Your task to perform on an android device: open app "Expedia: Hotels, Flights & Car" (install if not already installed) and enter user name: "crusader@outlook.com" and password: "Toryize" Image 0: 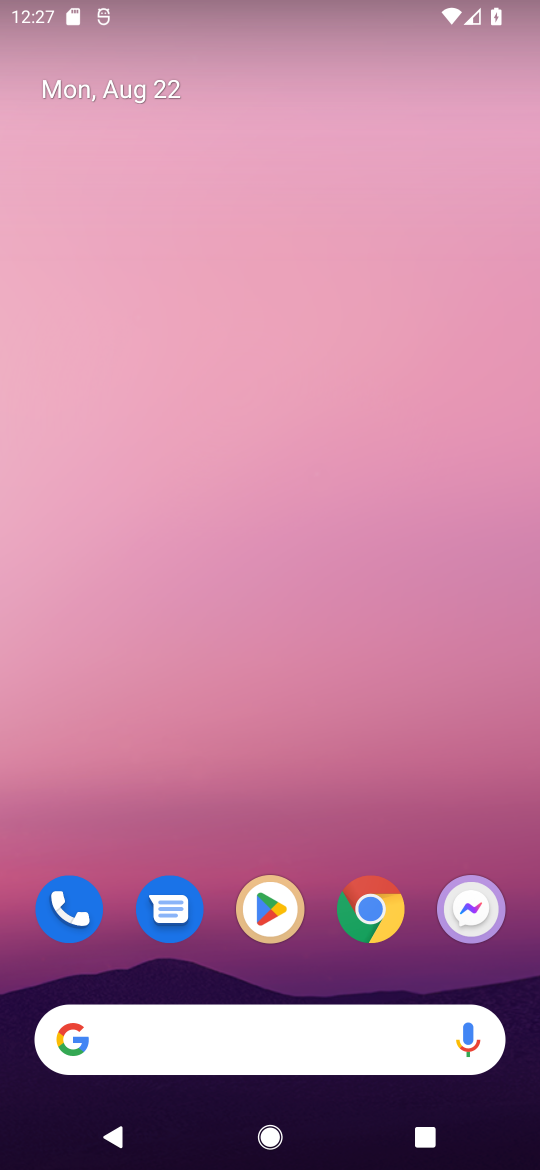
Step 0: click (256, 908)
Your task to perform on an android device: open app "Expedia: Hotels, Flights & Car" (install if not already installed) and enter user name: "crusader@outlook.com" and password: "Toryize" Image 1: 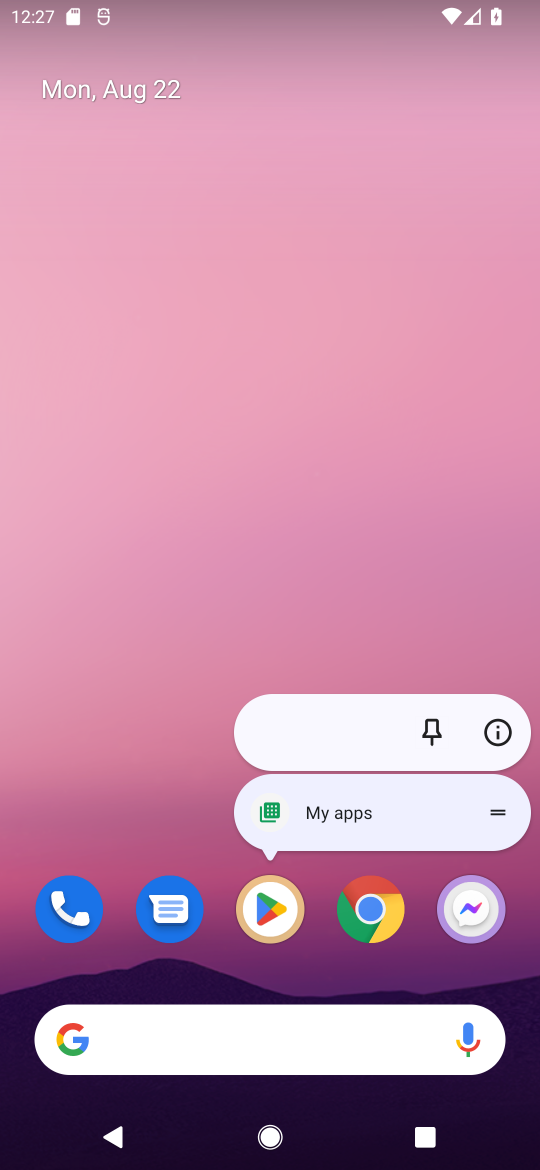
Step 1: click (272, 913)
Your task to perform on an android device: open app "Expedia: Hotels, Flights & Car" (install if not already installed) and enter user name: "crusader@outlook.com" and password: "Toryize" Image 2: 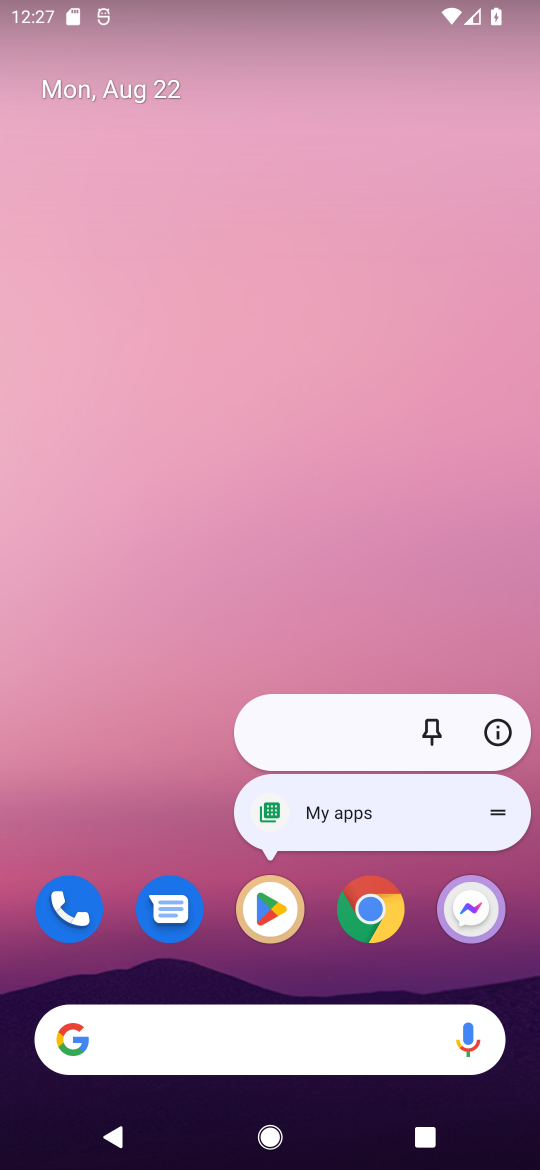
Step 2: click (277, 913)
Your task to perform on an android device: open app "Expedia: Hotels, Flights & Car" (install if not already installed) and enter user name: "crusader@outlook.com" and password: "Toryize" Image 3: 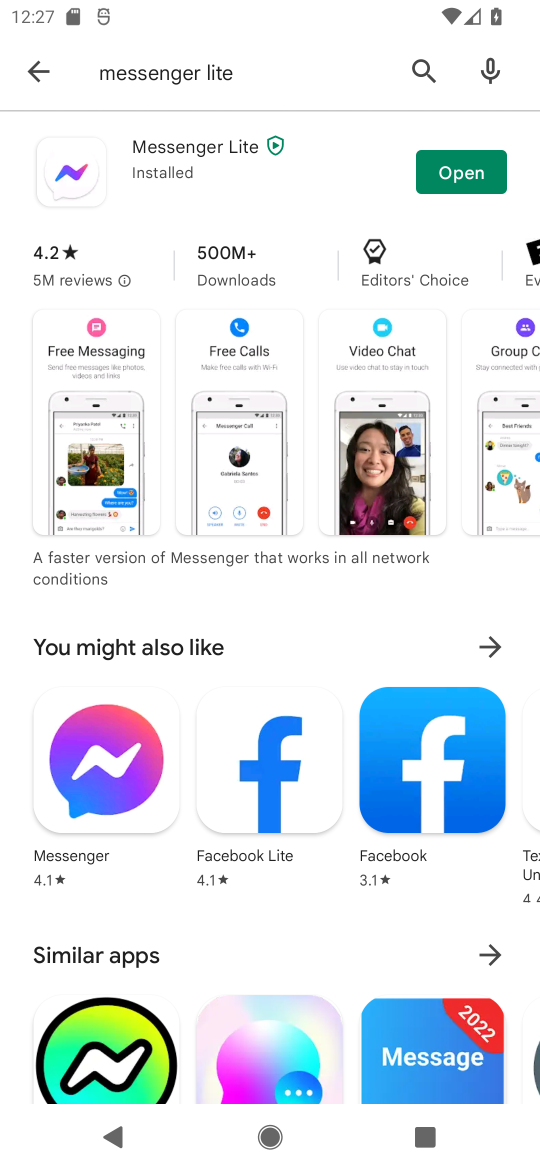
Step 3: click (430, 59)
Your task to perform on an android device: open app "Expedia: Hotels, Flights & Car" (install if not already installed) and enter user name: "crusader@outlook.com" and password: "Toryize" Image 4: 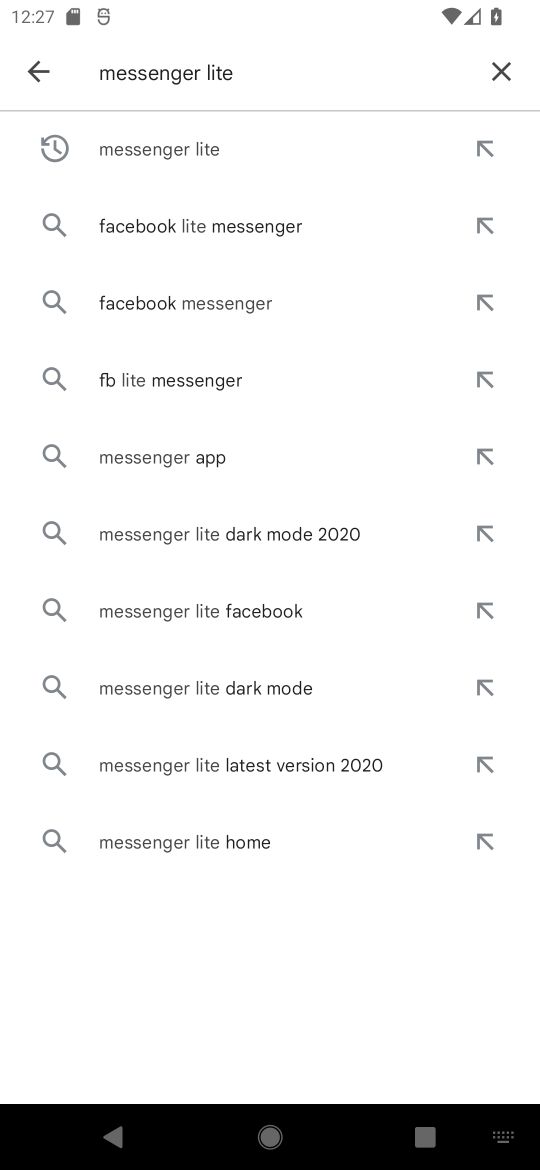
Step 4: click (495, 67)
Your task to perform on an android device: open app "Expedia: Hotels, Flights & Car" (install if not already installed) and enter user name: "crusader@outlook.com" and password: "Toryize" Image 5: 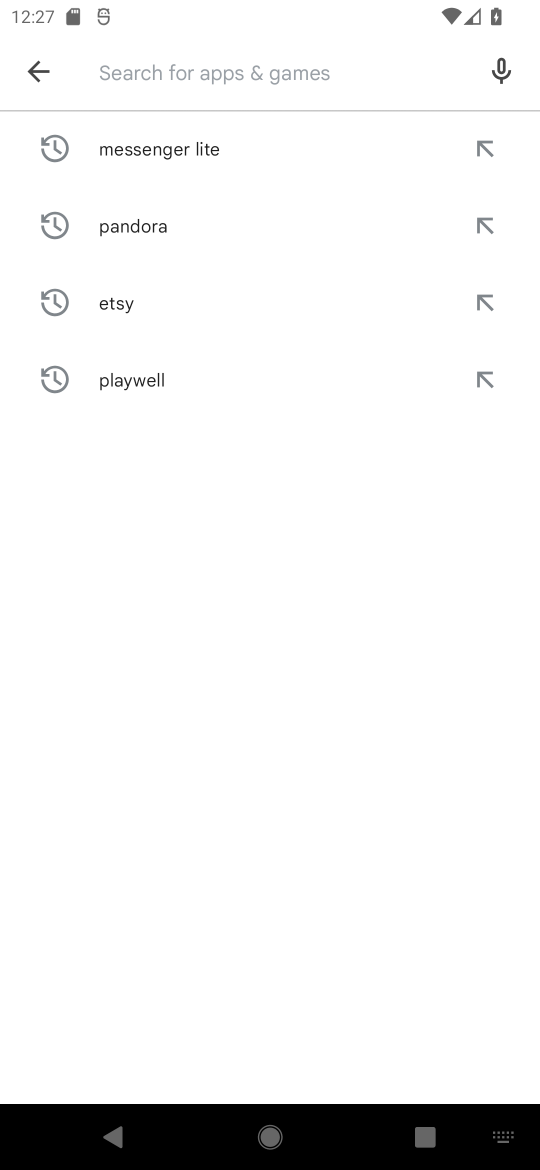
Step 5: click (156, 65)
Your task to perform on an android device: open app "Expedia: Hotels, Flights & Car" (install if not already installed) and enter user name: "crusader@outlook.com" and password: "Toryize" Image 6: 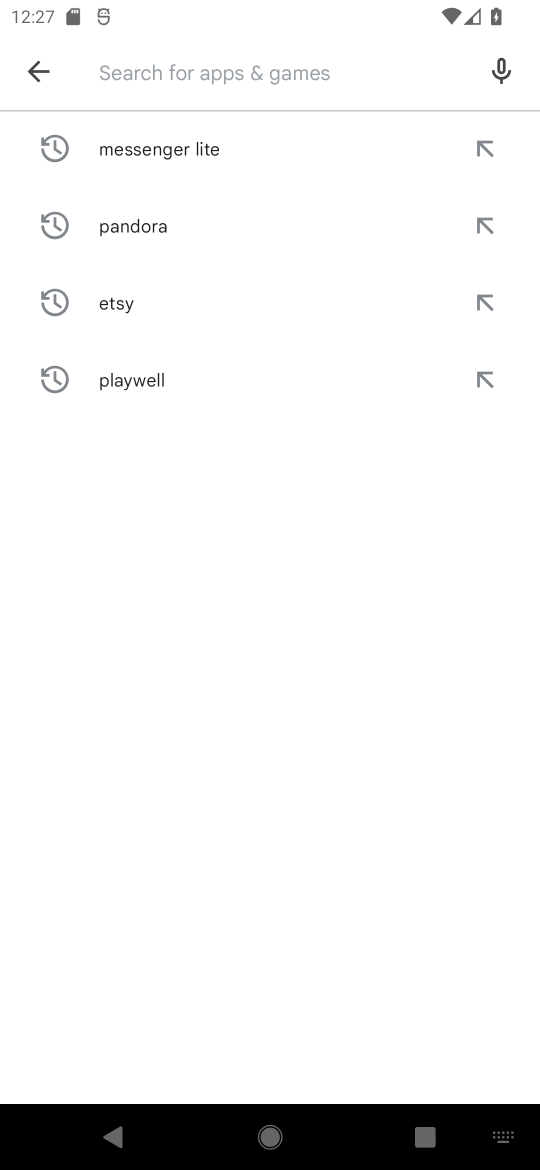
Step 6: type "expedia"
Your task to perform on an android device: open app "Expedia: Hotels, Flights & Car" (install if not already installed) and enter user name: "crusader@outlook.com" and password: "Toryize" Image 7: 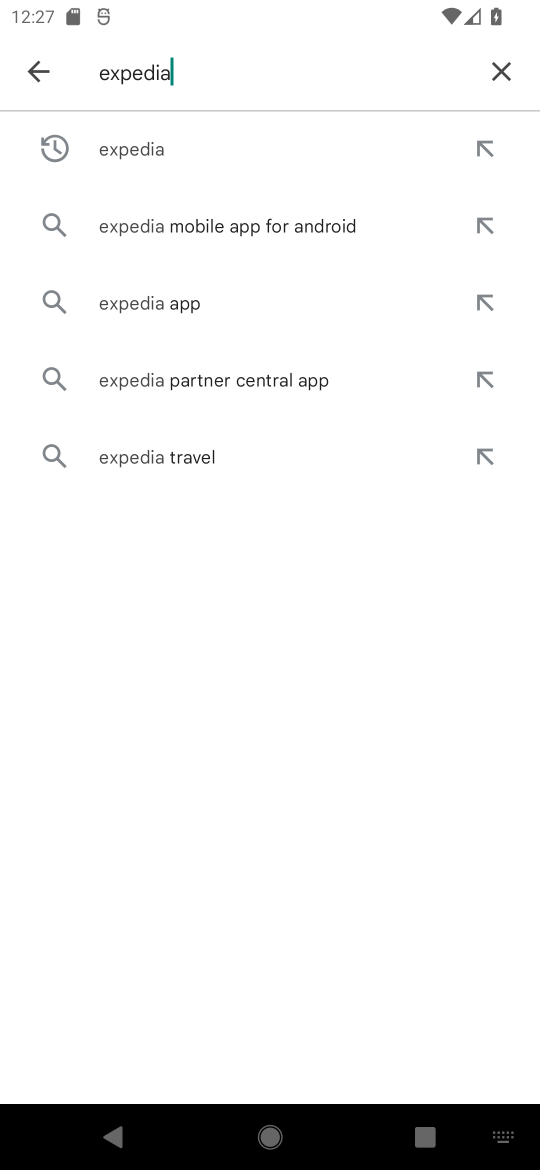
Step 7: click (164, 149)
Your task to perform on an android device: open app "Expedia: Hotels, Flights & Car" (install if not already installed) and enter user name: "crusader@outlook.com" and password: "Toryize" Image 8: 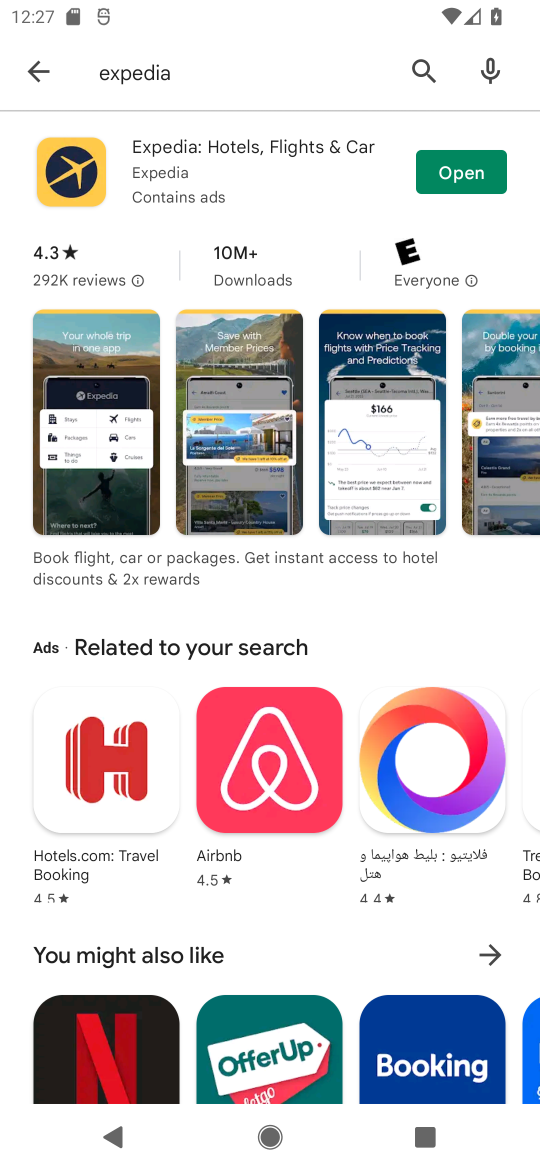
Step 8: click (432, 181)
Your task to perform on an android device: open app "Expedia: Hotels, Flights & Car" (install if not already installed) and enter user name: "crusader@outlook.com" and password: "Toryize" Image 9: 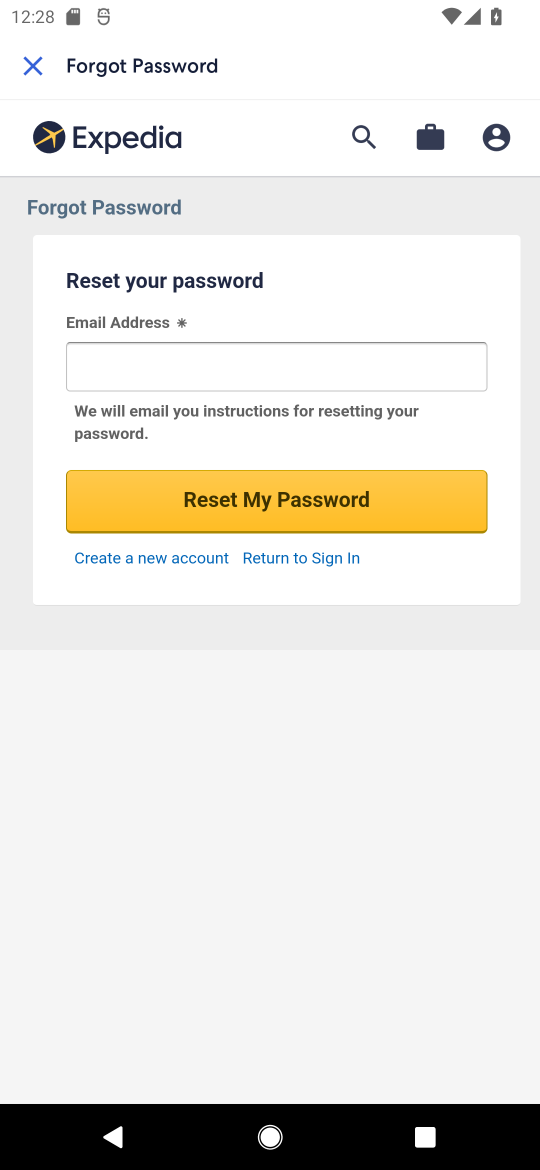
Step 9: click (130, 363)
Your task to perform on an android device: open app "Expedia: Hotels, Flights & Car" (install if not already installed) and enter user name: "crusader@outlook.com" and password: "Toryize" Image 10: 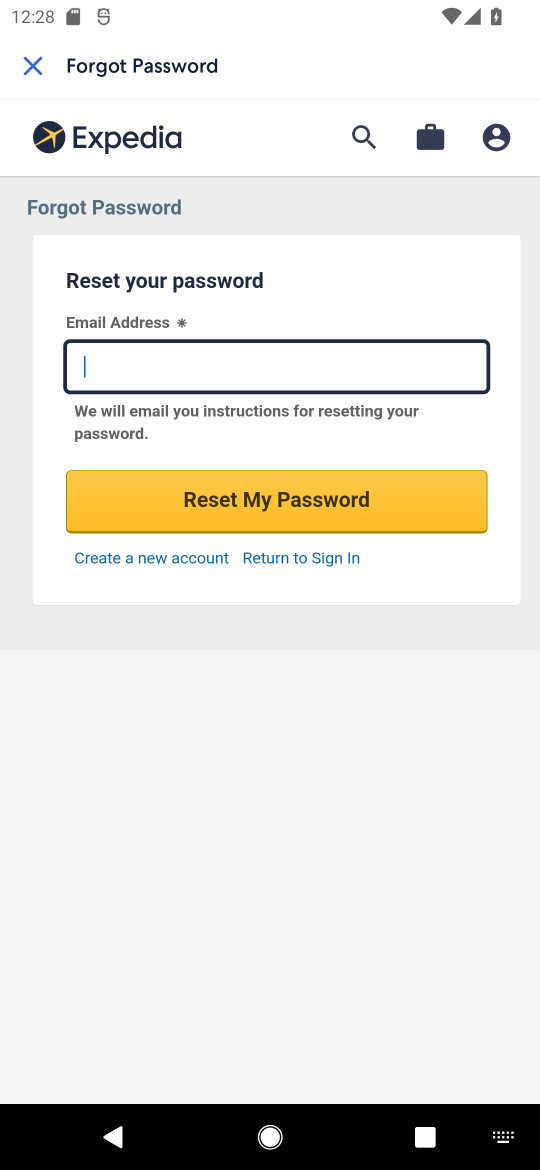
Step 10: type "crusader@outlook.com"
Your task to perform on an android device: open app "Expedia: Hotels, Flights & Car" (install if not already installed) and enter user name: "crusader@outlook.com" and password: "Toryize" Image 11: 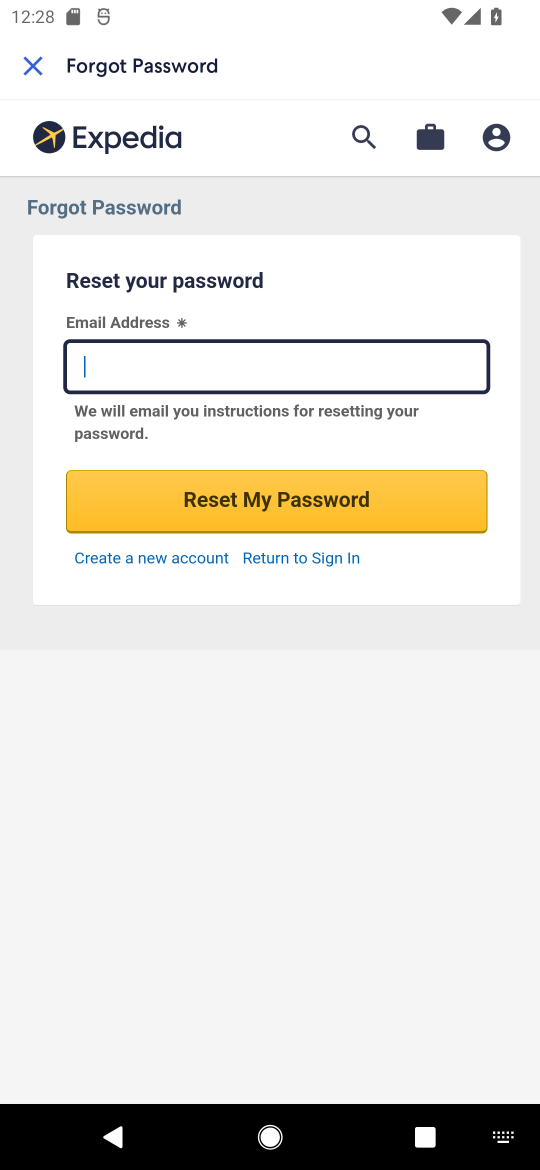
Step 11: click (355, 846)
Your task to perform on an android device: open app "Expedia: Hotels, Flights & Car" (install if not already installed) and enter user name: "crusader@outlook.com" and password: "Toryize" Image 12: 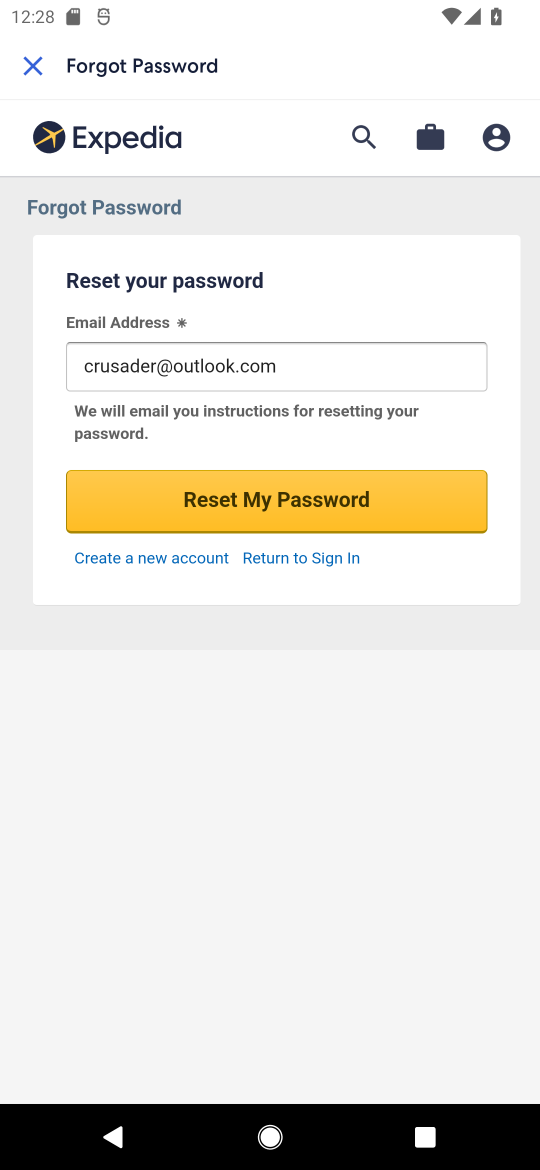
Step 12: click (297, 502)
Your task to perform on an android device: open app "Expedia: Hotels, Flights & Car" (install if not already installed) and enter user name: "crusader@outlook.com" and password: "Toryize" Image 13: 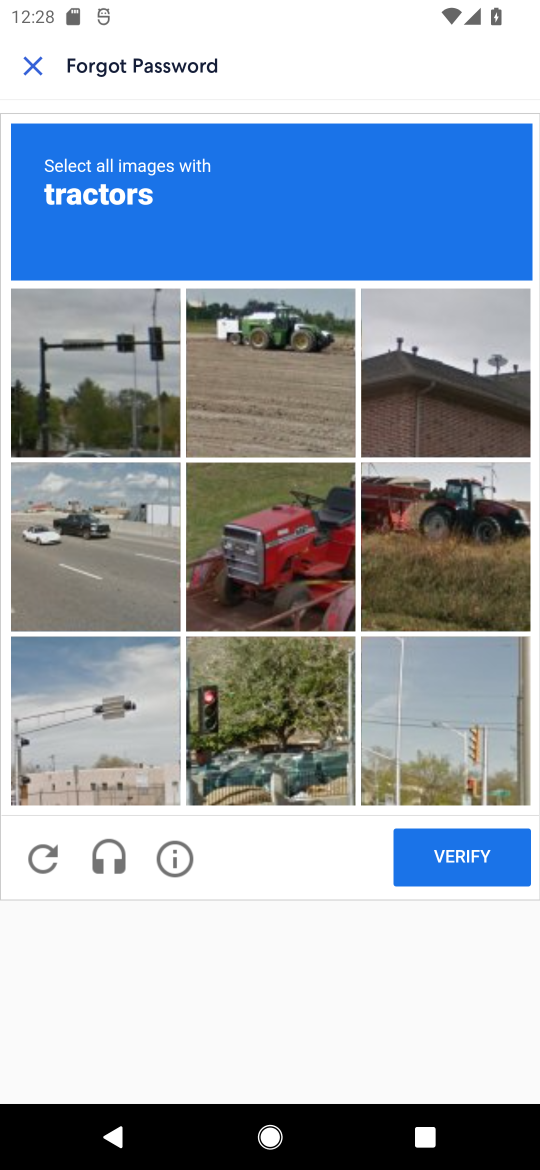
Step 13: click (320, 553)
Your task to perform on an android device: open app "Expedia: Hotels, Flights & Car" (install if not already installed) and enter user name: "crusader@outlook.com" and password: "Toryize" Image 14: 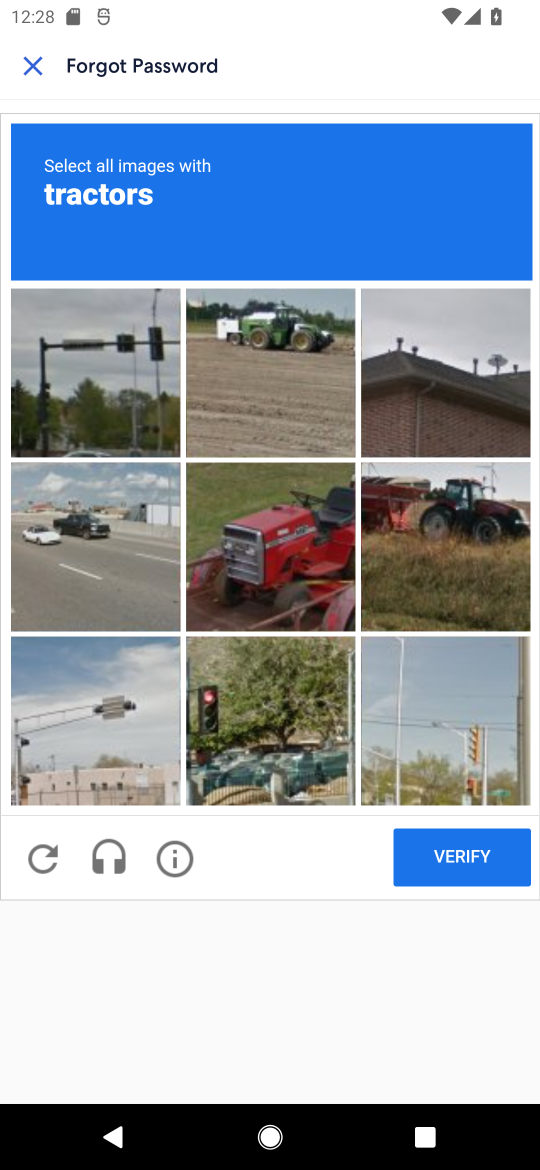
Step 14: click (474, 532)
Your task to perform on an android device: open app "Expedia: Hotels, Flights & Car" (install if not already installed) and enter user name: "crusader@outlook.com" and password: "Toryize" Image 15: 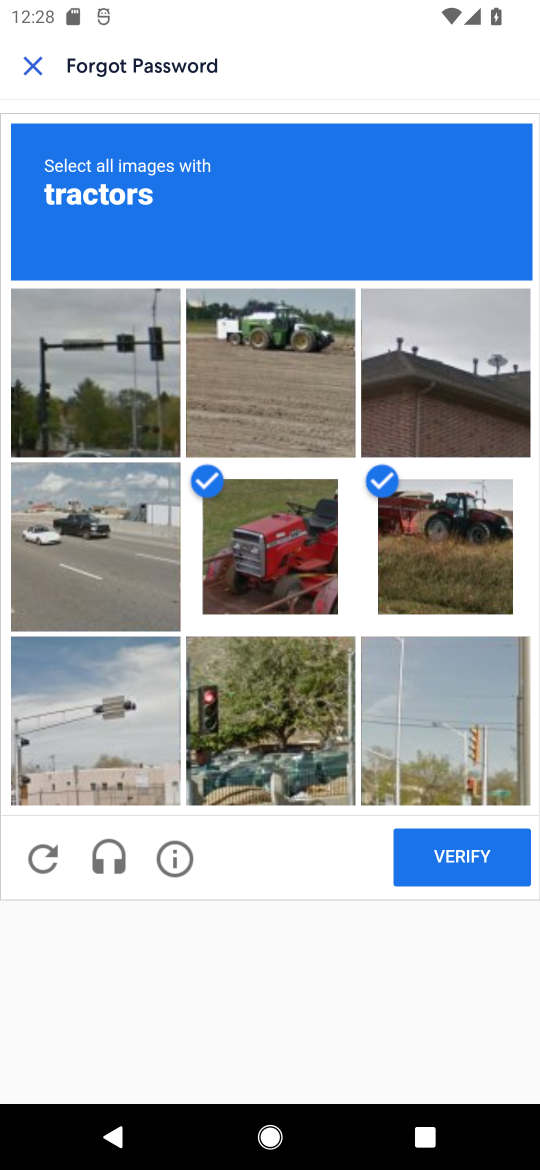
Step 15: click (308, 374)
Your task to perform on an android device: open app "Expedia: Hotels, Flights & Car" (install if not already installed) and enter user name: "crusader@outlook.com" and password: "Toryize" Image 16: 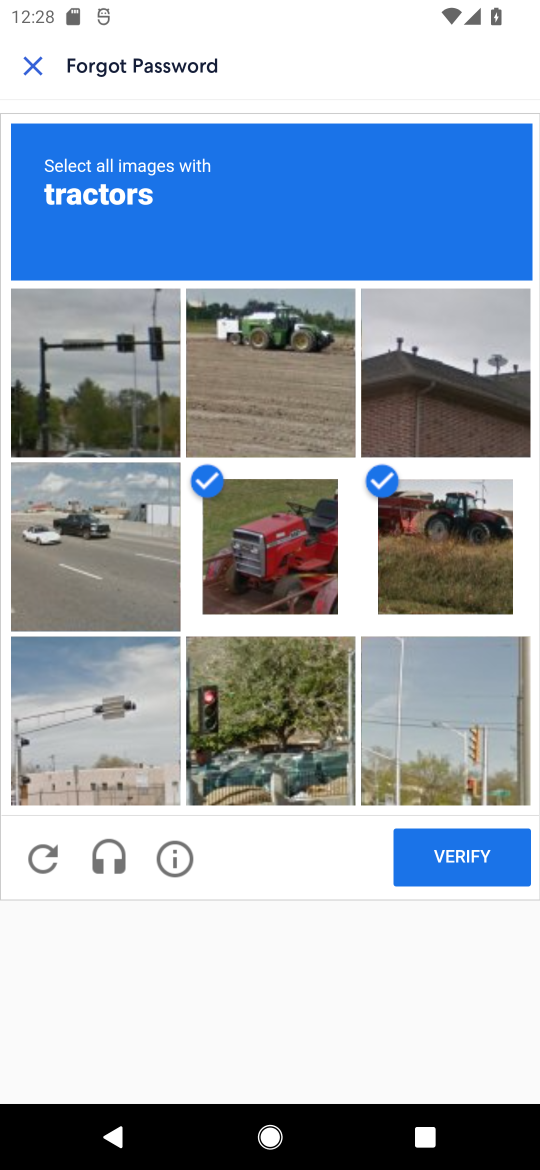
Step 16: click (480, 859)
Your task to perform on an android device: open app "Expedia: Hotels, Flights & Car" (install if not already installed) and enter user name: "crusader@outlook.com" and password: "Toryize" Image 17: 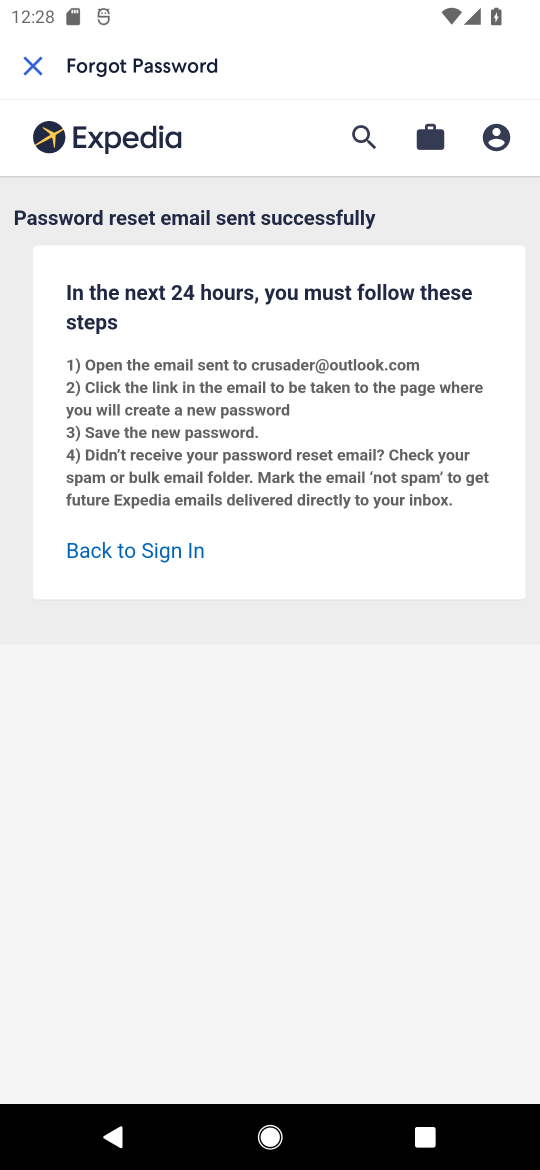
Step 17: click (128, 553)
Your task to perform on an android device: open app "Expedia: Hotels, Flights & Car" (install if not already installed) and enter user name: "crusader@outlook.com" and password: "Toryize" Image 18: 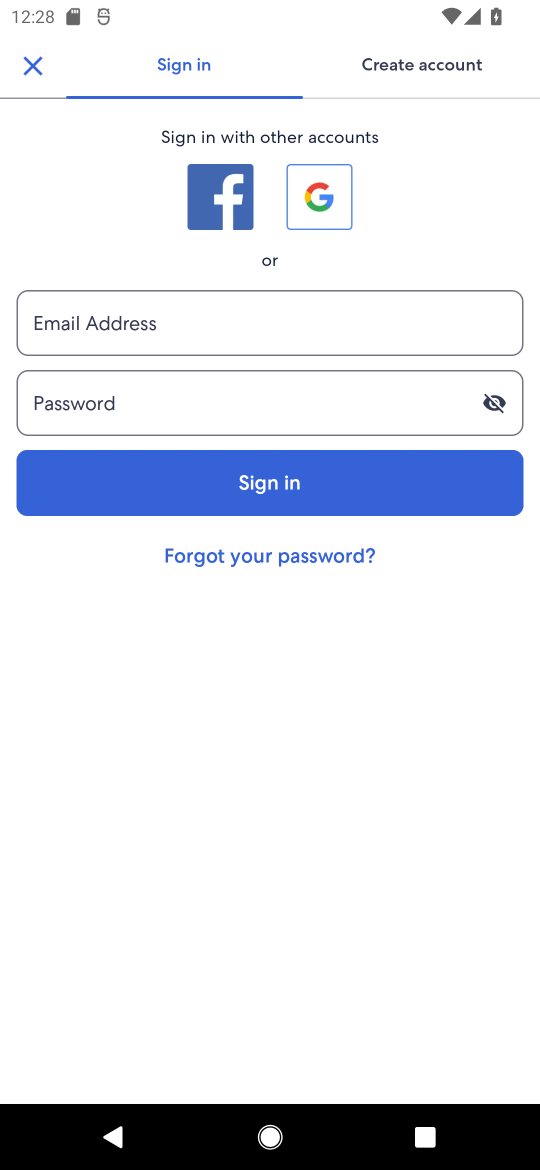
Step 18: task complete